Your task to perform on an android device: What's the weather going to be tomorrow? Image 0: 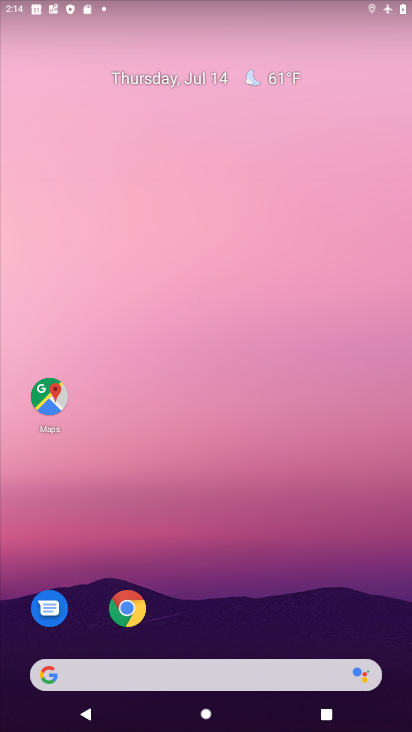
Step 0: drag from (206, 677) to (313, 223)
Your task to perform on an android device: What's the weather going to be tomorrow? Image 1: 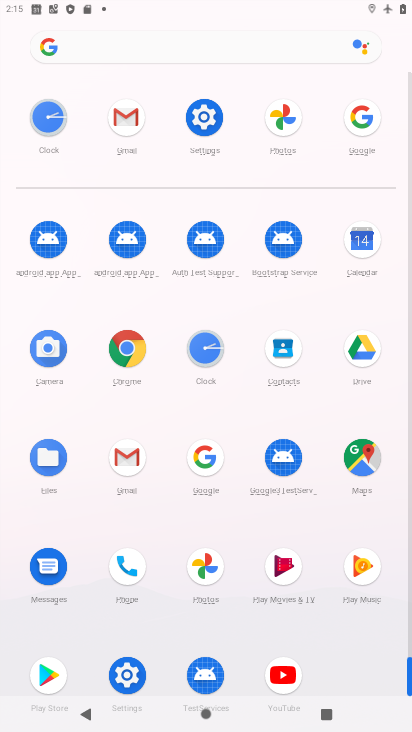
Step 1: click (204, 450)
Your task to perform on an android device: What's the weather going to be tomorrow? Image 2: 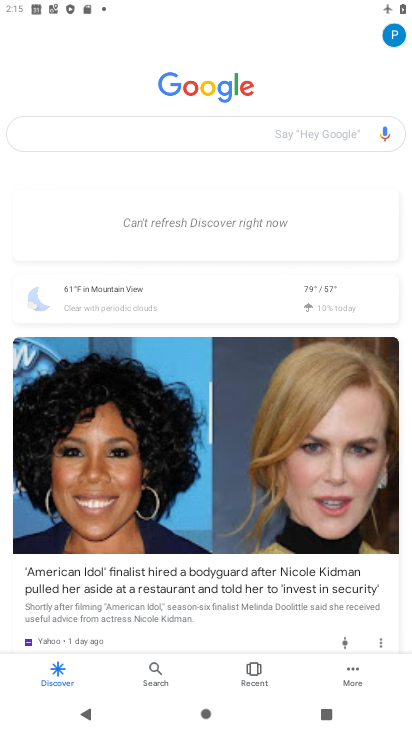
Step 2: click (311, 283)
Your task to perform on an android device: What's the weather going to be tomorrow? Image 3: 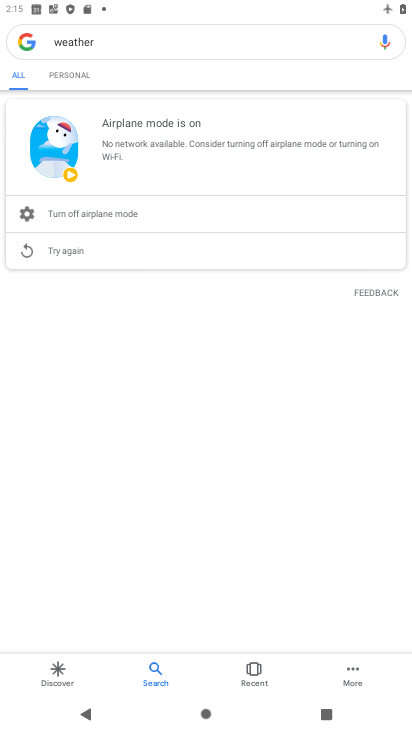
Step 3: task complete